Your task to perform on an android device: Go to Maps Image 0: 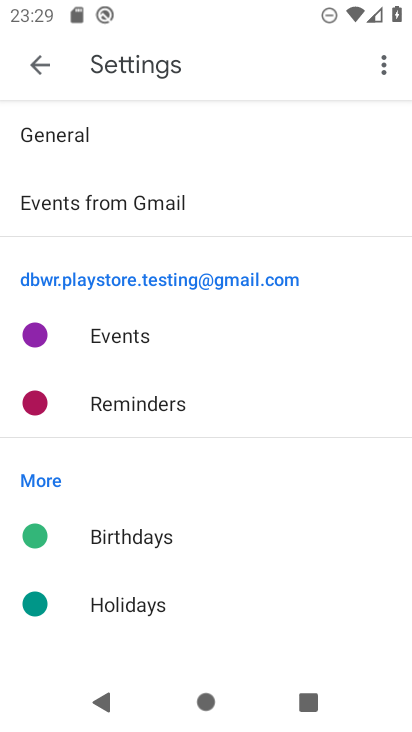
Step 0: press home button
Your task to perform on an android device: Go to Maps Image 1: 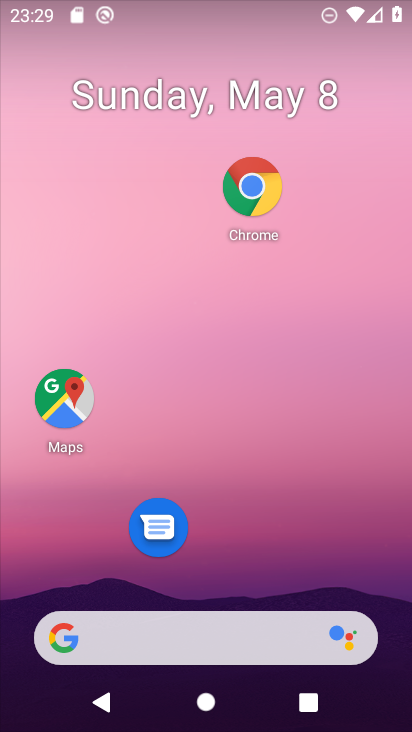
Step 1: drag from (308, 595) to (330, 220)
Your task to perform on an android device: Go to Maps Image 2: 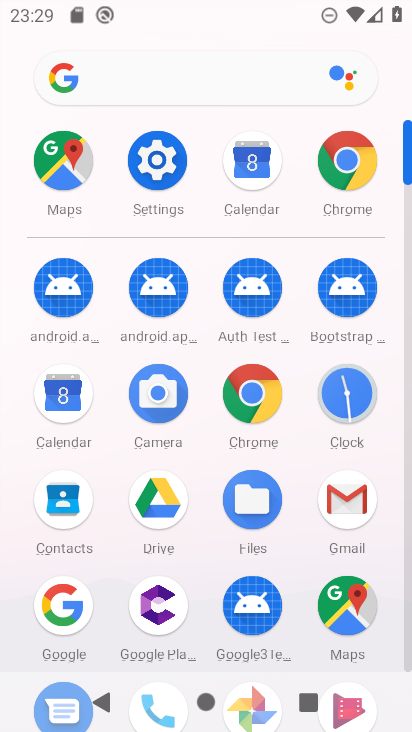
Step 2: click (364, 592)
Your task to perform on an android device: Go to Maps Image 3: 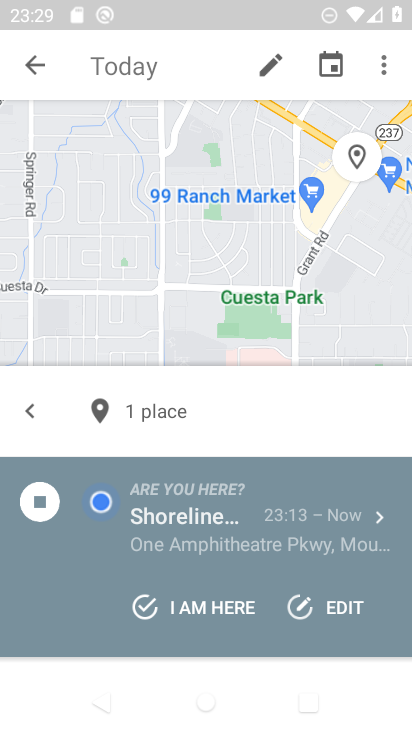
Step 3: click (30, 64)
Your task to perform on an android device: Go to Maps Image 4: 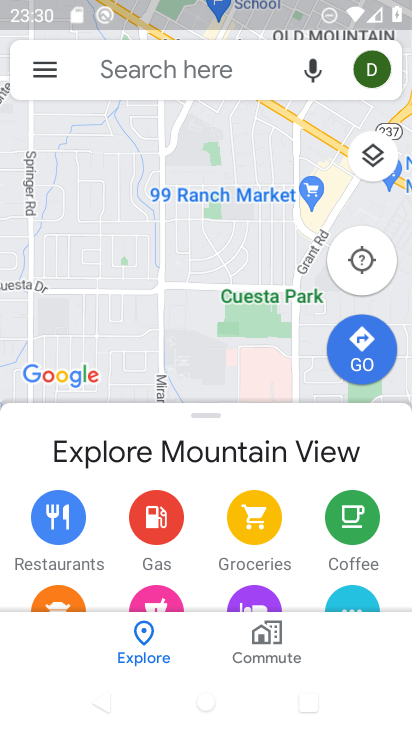
Step 4: task complete